Your task to perform on an android device: install app "Google Calendar" Image 0: 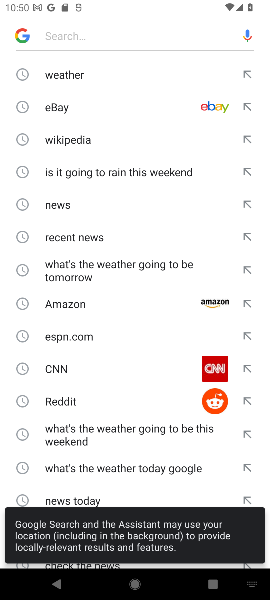
Step 0: press home button
Your task to perform on an android device: install app "Google Calendar" Image 1: 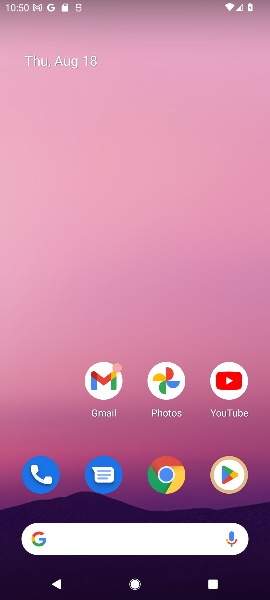
Step 1: click (226, 470)
Your task to perform on an android device: install app "Google Calendar" Image 2: 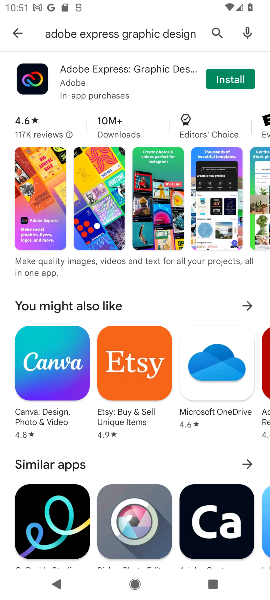
Step 2: click (214, 33)
Your task to perform on an android device: install app "Google Calendar" Image 3: 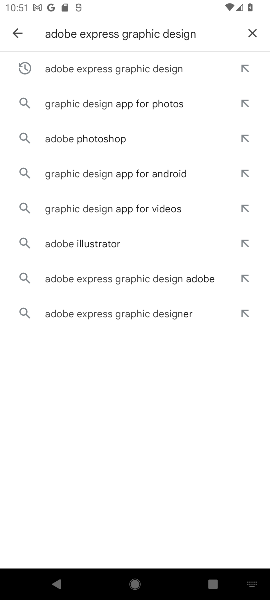
Step 3: click (253, 29)
Your task to perform on an android device: install app "Google Calendar" Image 4: 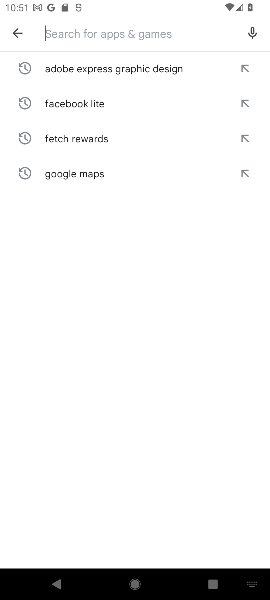
Step 4: type "Google Calendar"
Your task to perform on an android device: install app "Google Calendar" Image 5: 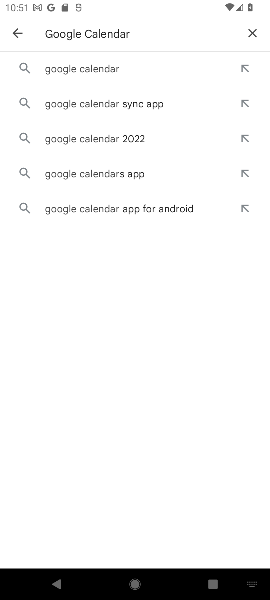
Step 5: click (85, 57)
Your task to perform on an android device: install app "Google Calendar" Image 6: 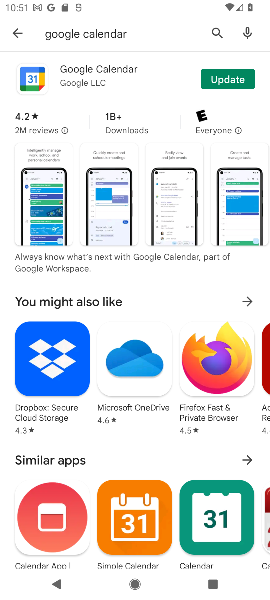
Step 6: click (244, 84)
Your task to perform on an android device: install app "Google Calendar" Image 7: 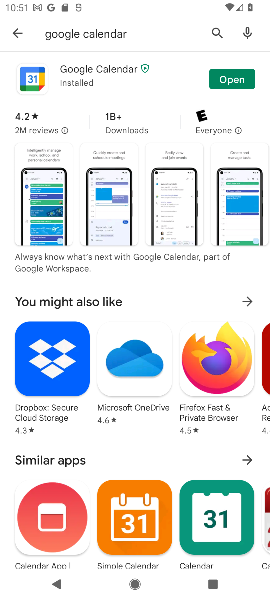
Step 7: click (240, 82)
Your task to perform on an android device: install app "Google Calendar" Image 8: 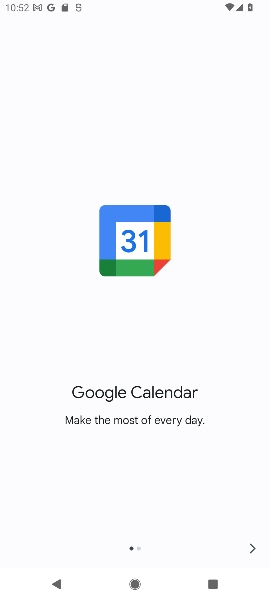
Step 8: click (249, 552)
Your task to perform on an android device: install app "Google Calendar" Image 9: 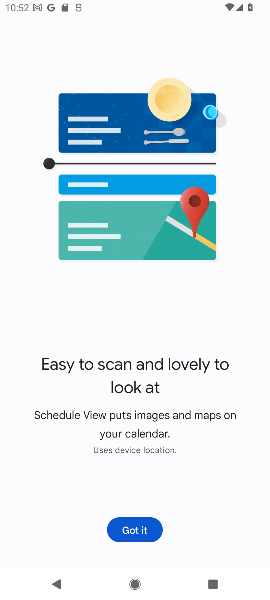
Step 9: click (147, 532)
Your task to perform on an android device: install app "Google Calendar" Image 10: 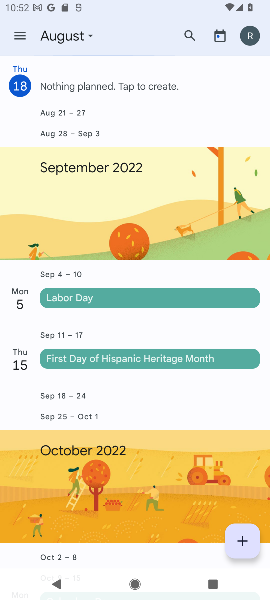
Step 10: task complete